Your task to perform on an android device: Open the map Image 0: 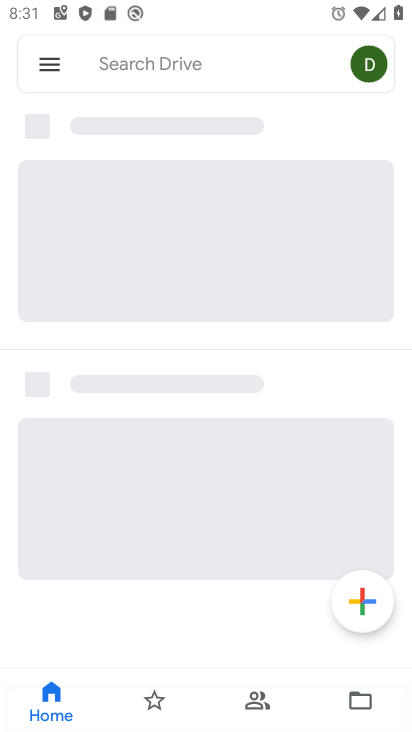
Step 0: press back button
Your task to perform on an android device: Open the map Image 1: 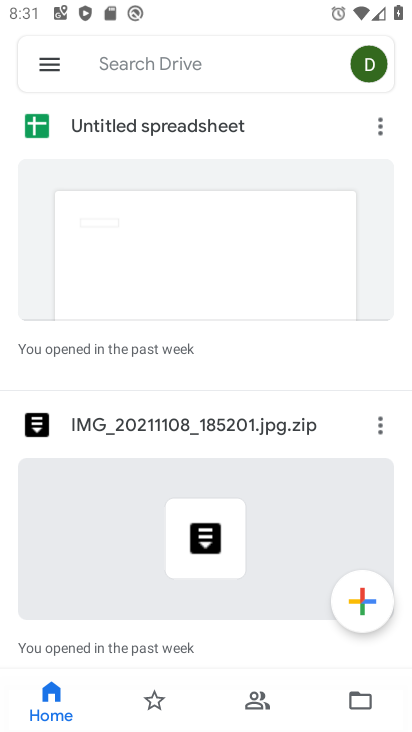
Step 1: press home button
Your task to perform on an android device: Open the map Image 2: 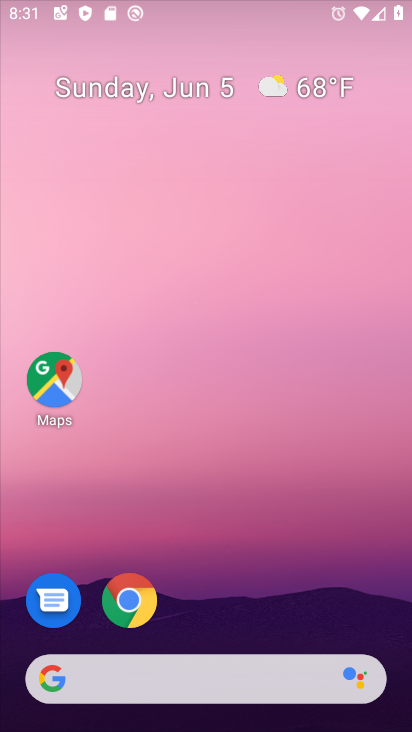
Step 2: drag from (398, 630) to (126, 152)
Your task to perform on an android device: Open the map Image 3: 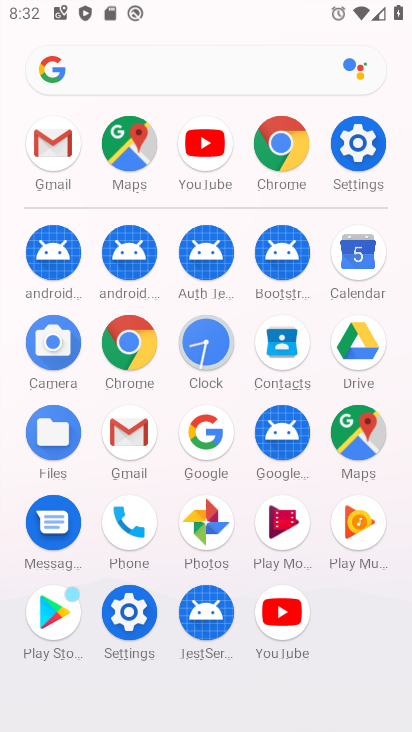
Step 3: click (362, 429)
Your task to perform on an android device: Open the map Image 4: 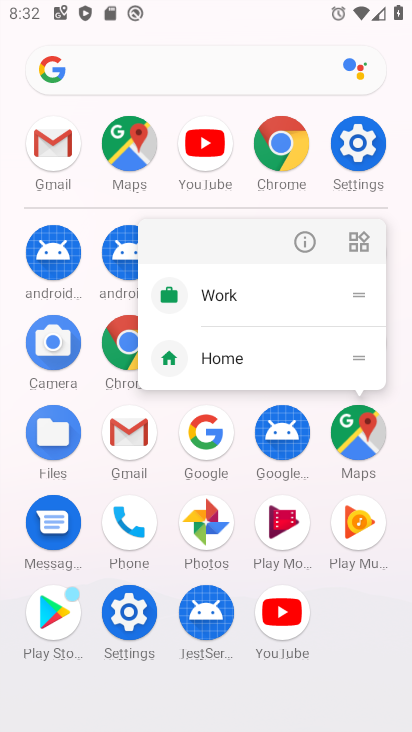
Step 4: click (363, 429)
Your task to perform on an android device: Open the map Image 5: 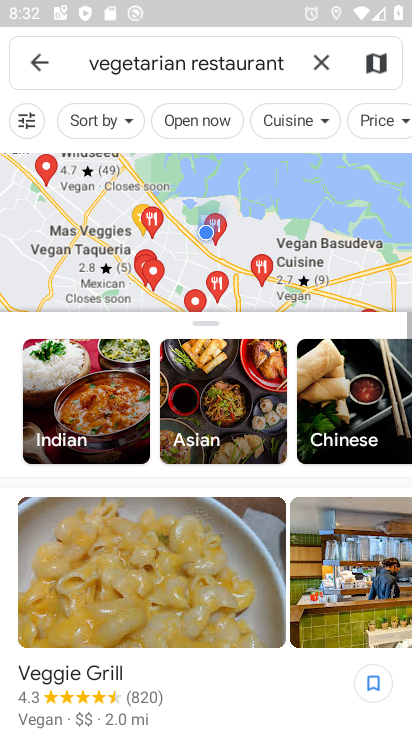
Step 5: click (324, 54)
Your task to perform on an android device: Open the map Image 6: 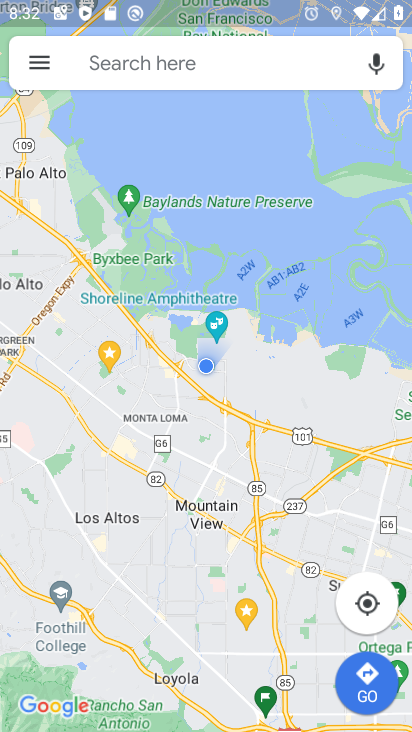
Step 6: task complete